Your task to perform on an android device: Go to wifi settings Image 0: 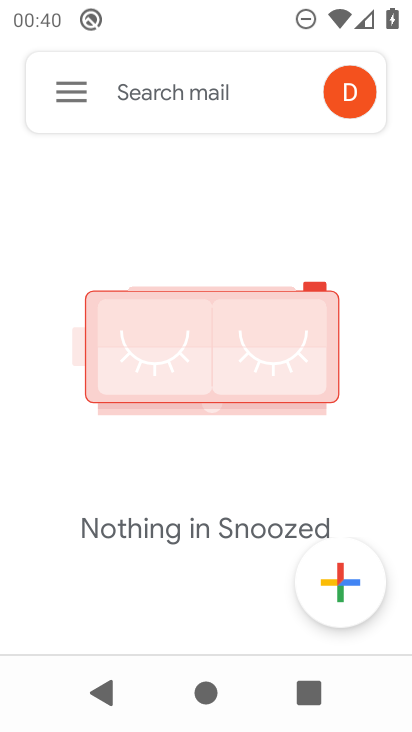
Step 0: press home button
Your task to perform on an android device: Go to wifi settings Image 1: 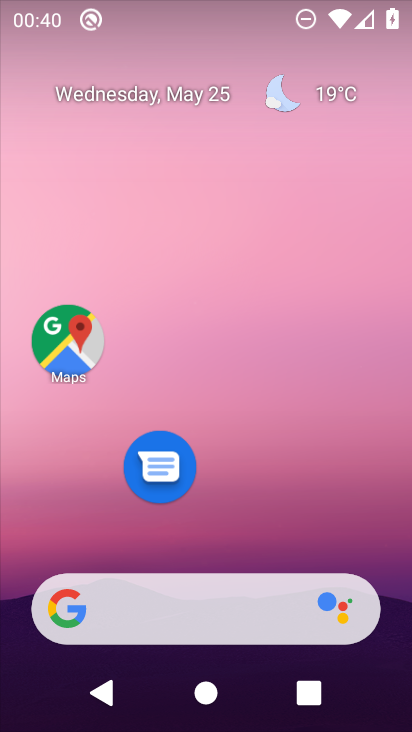
Step 1: drag from (174, 514) to (235, 134)
Your task to perform on an android device: Go to wifi settings Image 2: 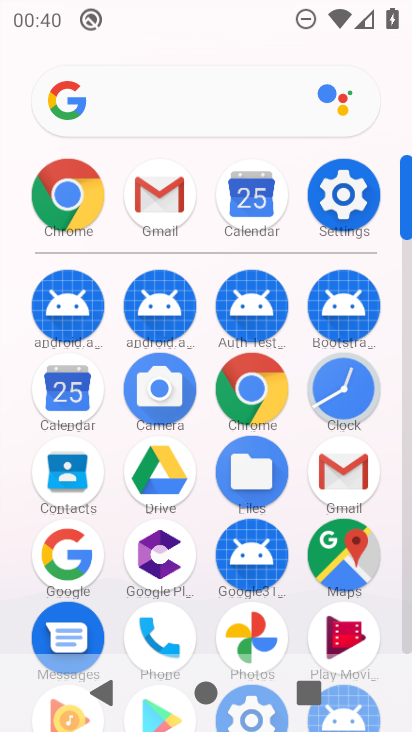
Step 2: click (336, 206)
Your task to perform on an android device: Go to wifi settings Image 3: 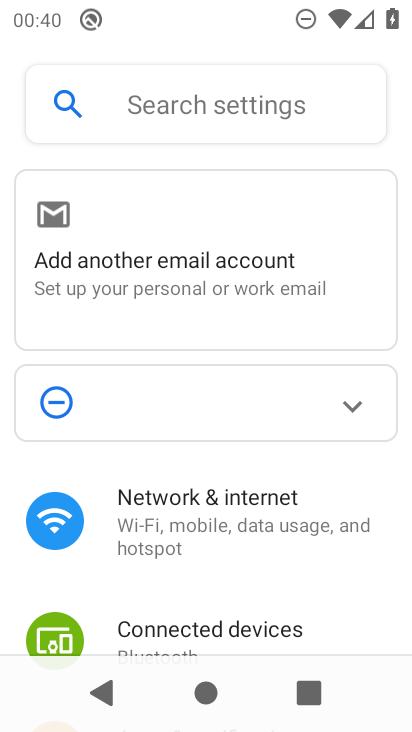
Step 3: drag from (191, 573) to (365, 357)
Your task to perform on an android device: Go to wifi settings Image 4: 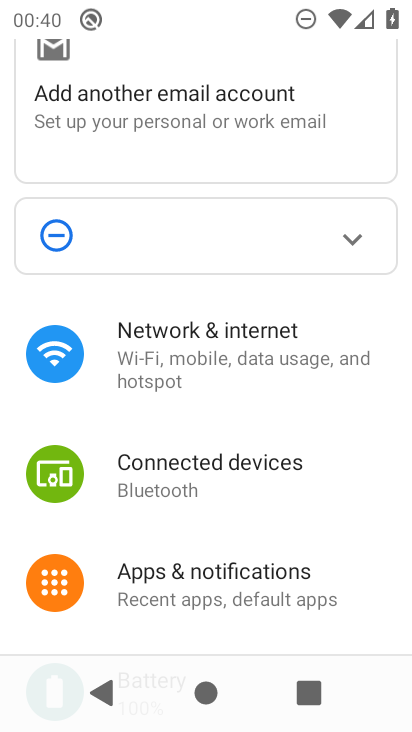
Step 4: click (238, 342)
Your task to perform on an android device: Go to wifi settings Image 5: 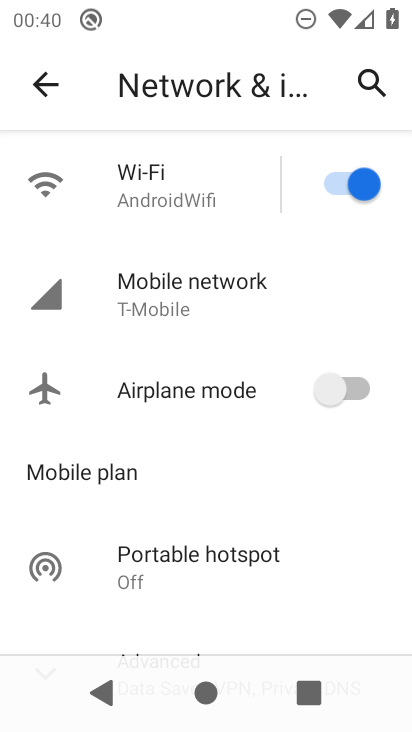
Step 5: click (218, 190)
Your task to perform on an android device: Go to wifi settings Image 6: 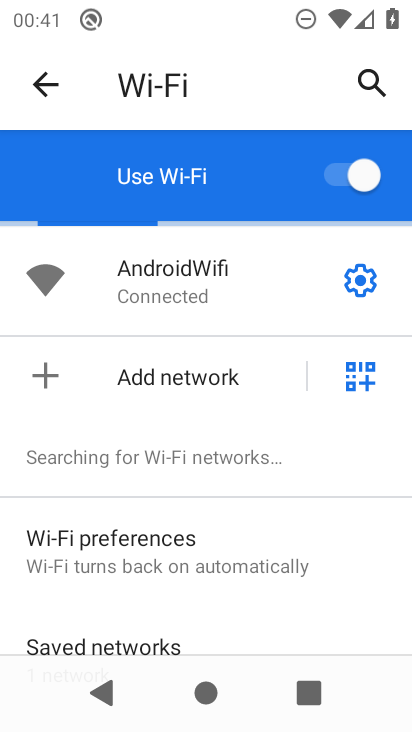
Step 6: click (357, 285)
Your task to perform on an android device: Go to wifi settings Image 7: 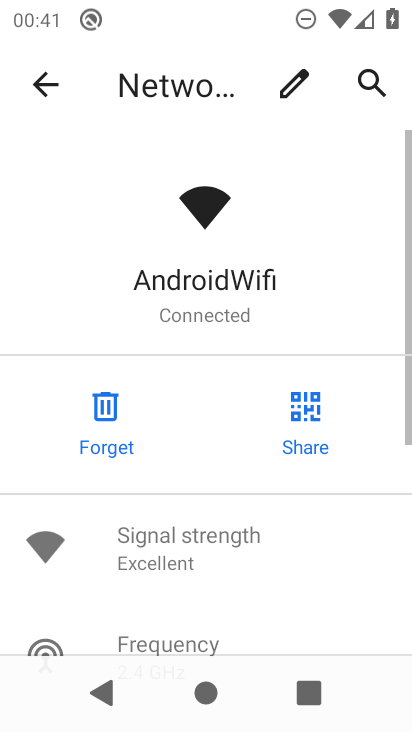
Step 7: task complete